Your task to perform on an android device: What's the weather today? Image 0: 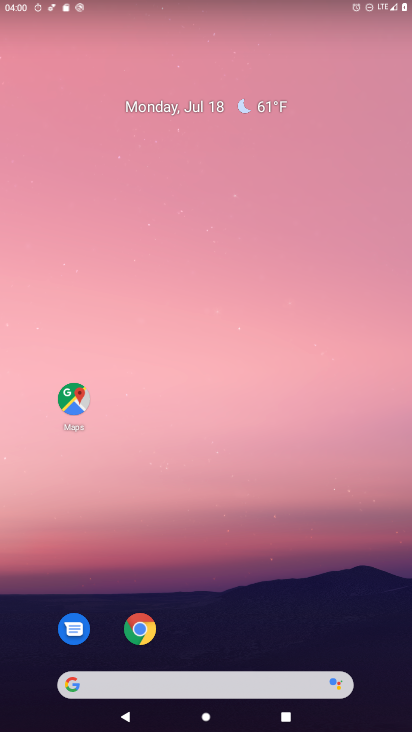
Step 0: drag from (204, 690) to (201, 134)
Your task to perform on an android device: What's the weather today? Image 1: 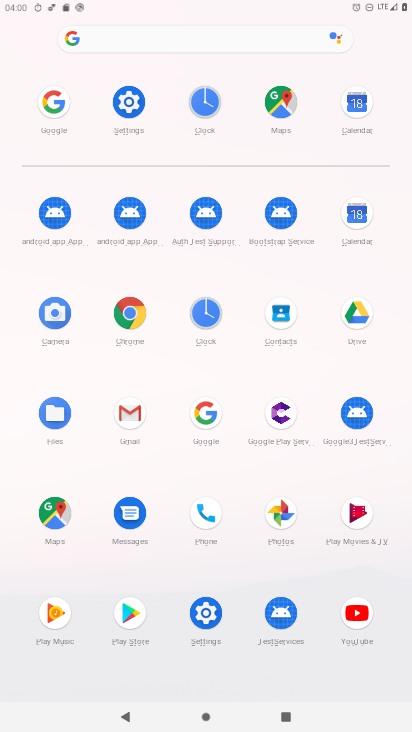
Step 1: click (206, 415)
Your task to perform on an android device: What's the weather today? Image 2: 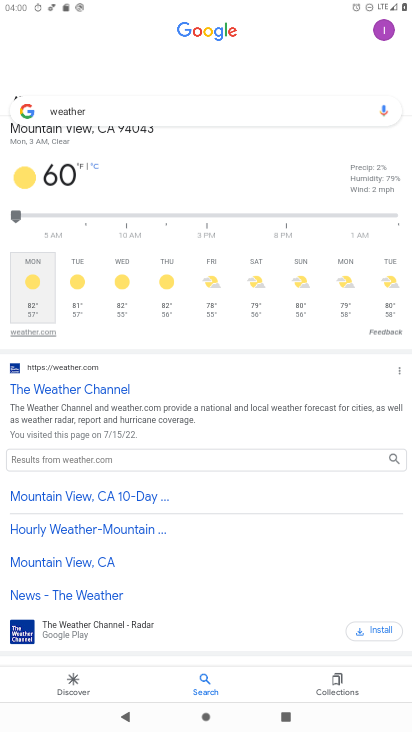
Step 2: task complete